Your task to perform on an android device: open the mobile data screen to see how much data has been used Image 0: 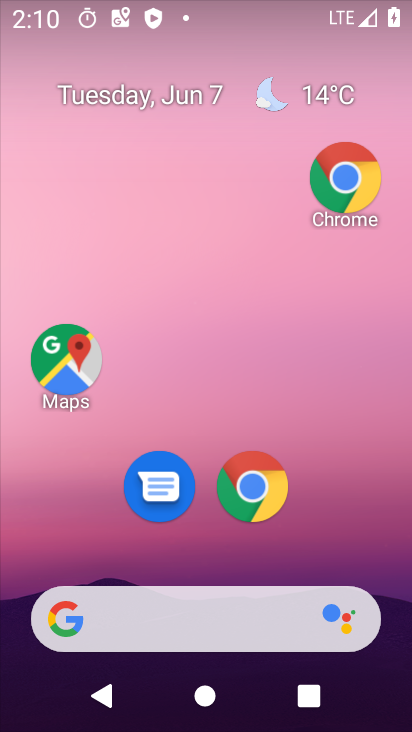
Step 0: drag from (128, 559) to (232, 1)
Your task to perform on an android device: open the mobile data screen to see how much data has been used Image 1: 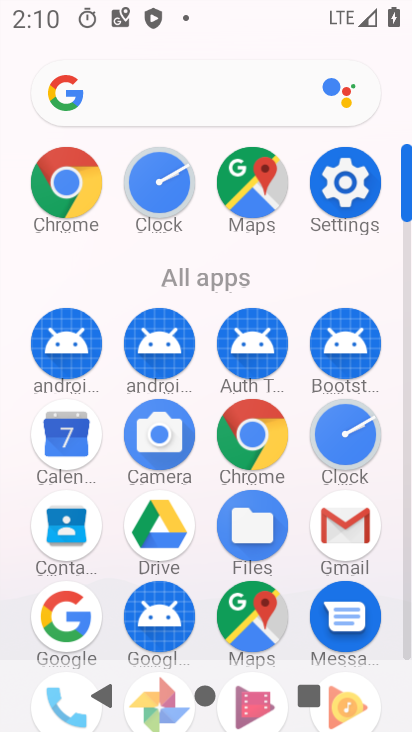
Step 1: drag from (173, 495) to (241, 255)
Your task to perform on an android device: open the mobile data screen to see how much data has been used Image 2: 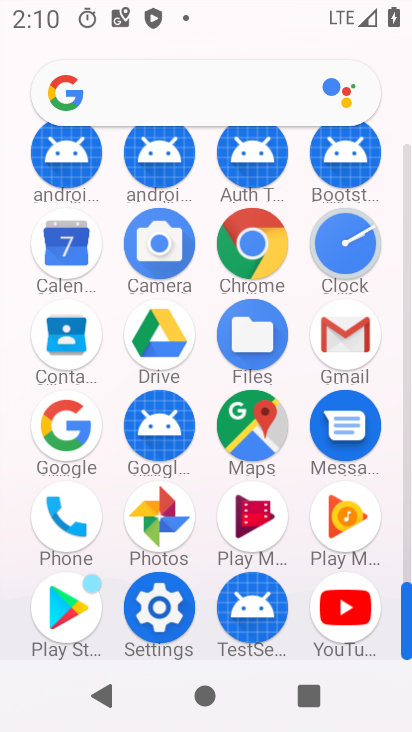
Step 2: click (150, 630)
Your task to perform on an android device: open the mobile data screen to see how much data has been used Image 3: 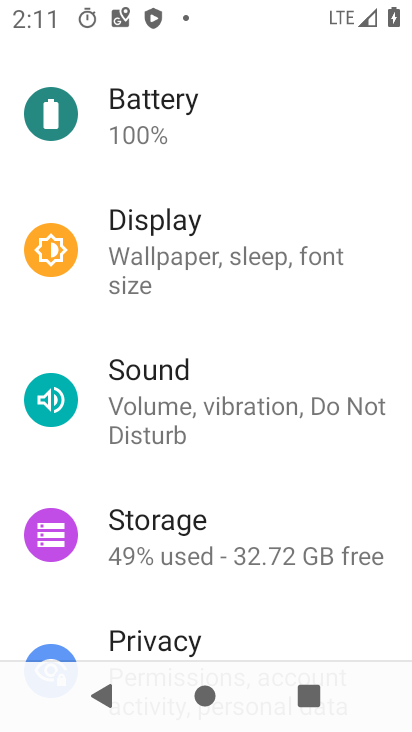
Step 3: drag from (220, 166) to (227, 615)
Your task to perform on an android device: open the mobile data screen to see how much data has been used Image 4: 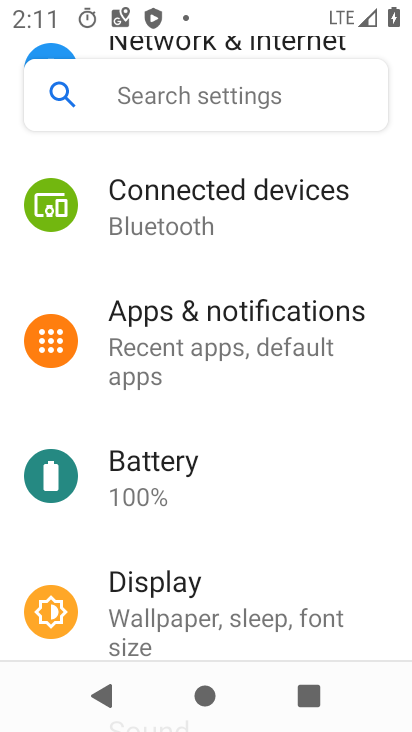
Step 4: drag from (259, 561) to (257, 619)
Your task to perform on an android device: open the mobile data screen to see how much data has been used Image 5: 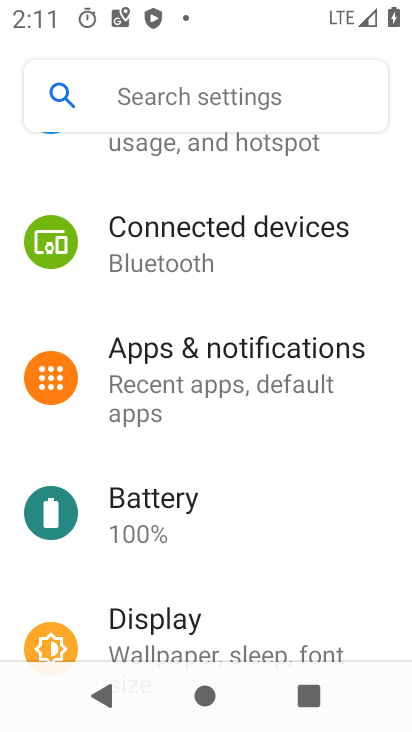
Step 5: drag from (252, 293) to (258, 626)
Your task to perform on an android device: open the mobile data screen to see how much data has been used Image 6: 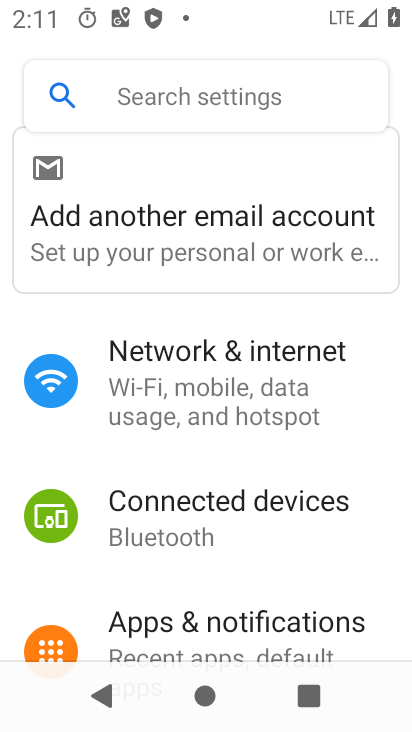
Step 6: click (238, 435)
Your task to perform on an android device: open the mobile data screen to see how much data has been used Image 7: 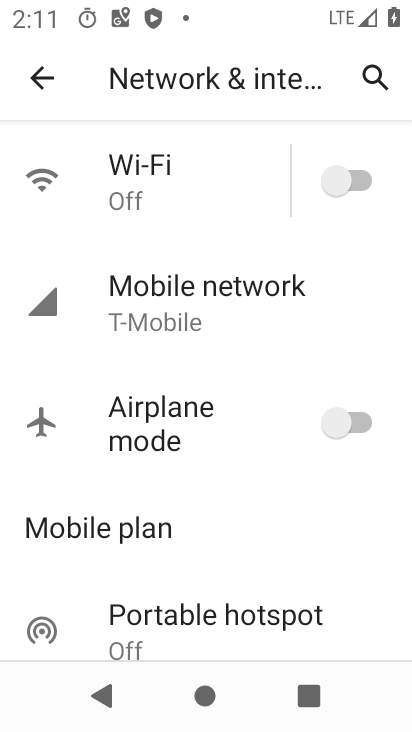
Step 7: click (262, 320)
Your task to perform on an android device: open the mobile data screen to see how much data has been used Image 8: 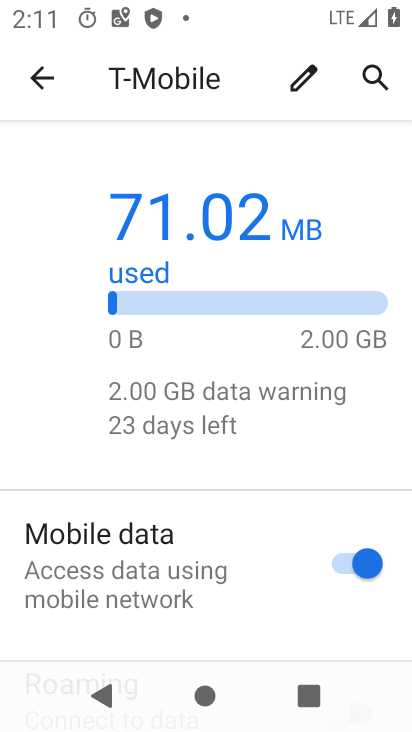
Step 8: task complete